Your task to perform on an android device: install app "Yahoo Mail" Image 0: 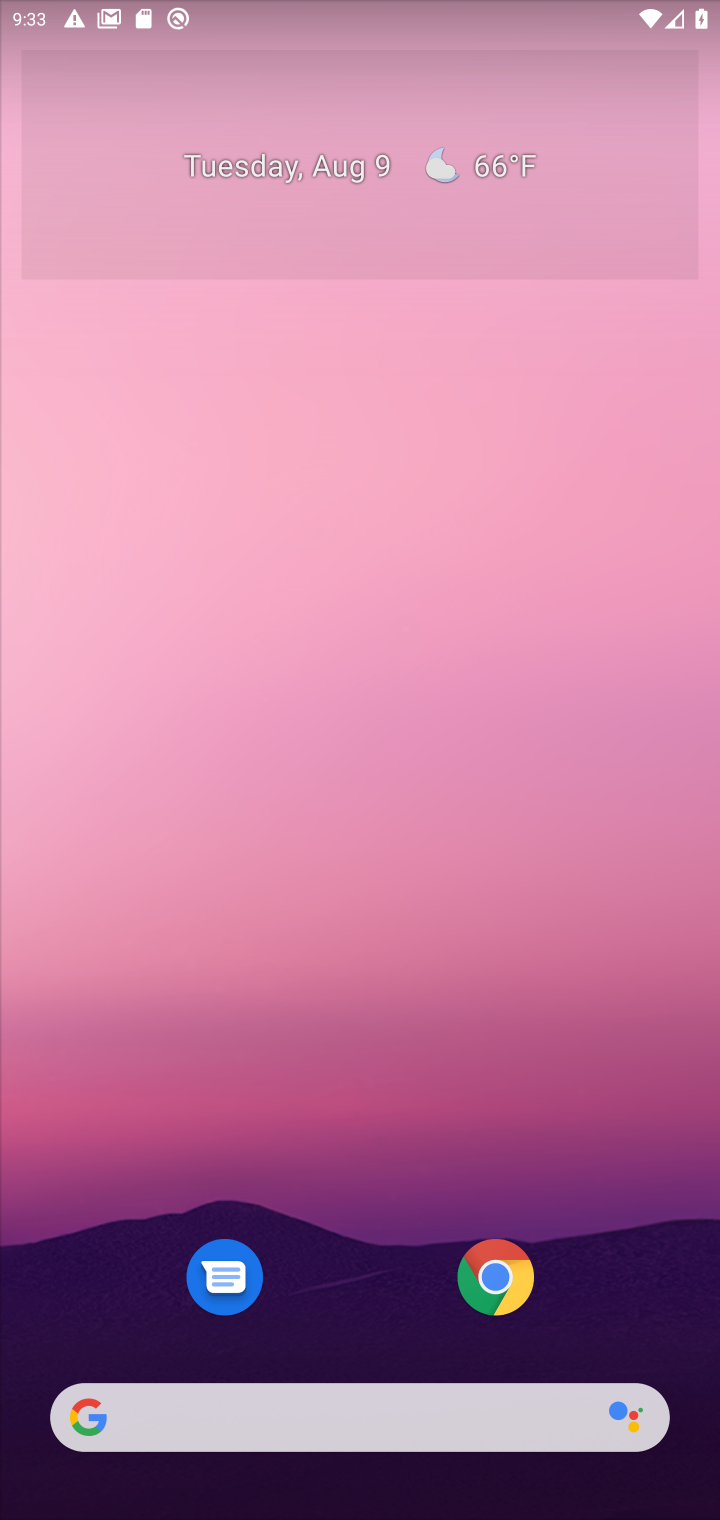
Step 0: drag from (342, 1375) to (255, 264)
Your task to perform on an android device: install app "Yahoo Mail" Image 1: 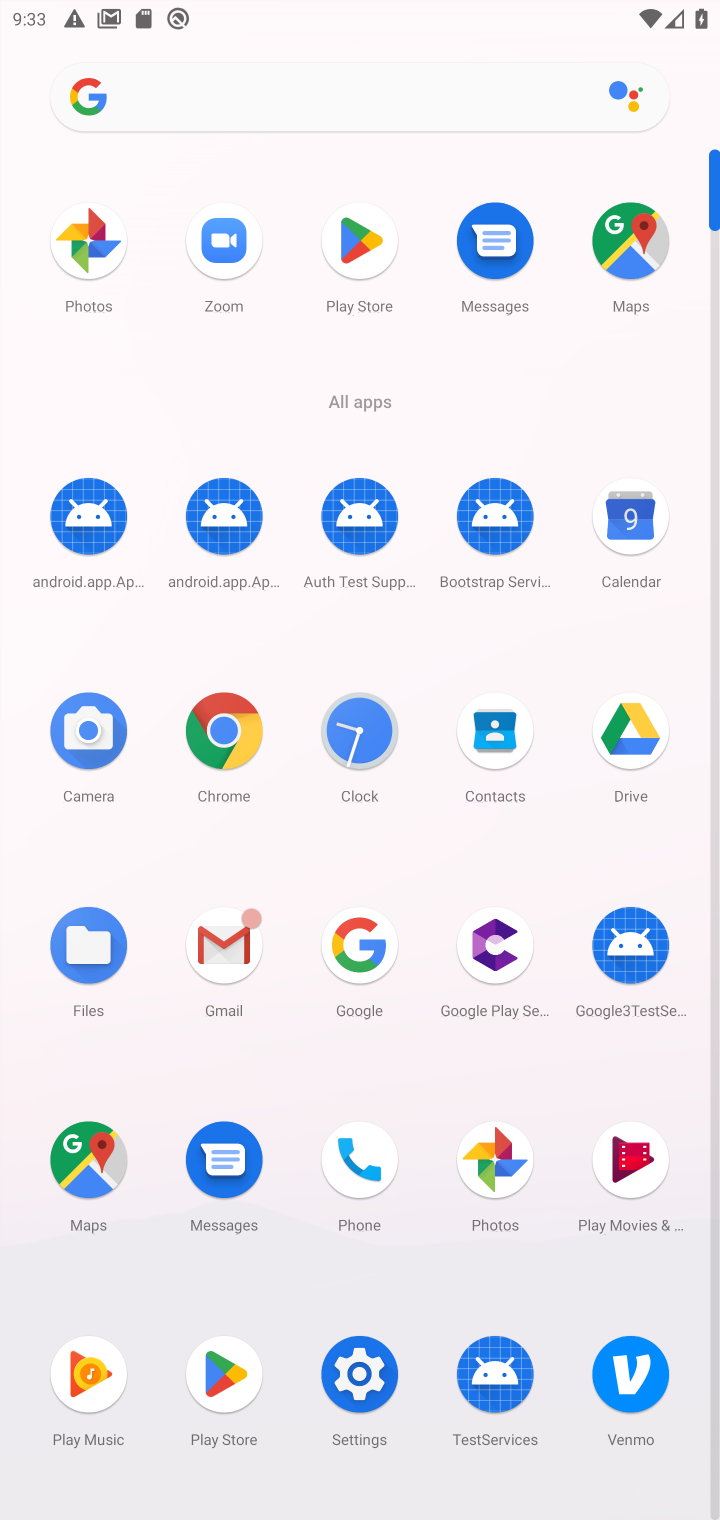
Step 1: click (211, 1366)
Your task to perform on an android device: install app "Yahoo Mail" Image 2: 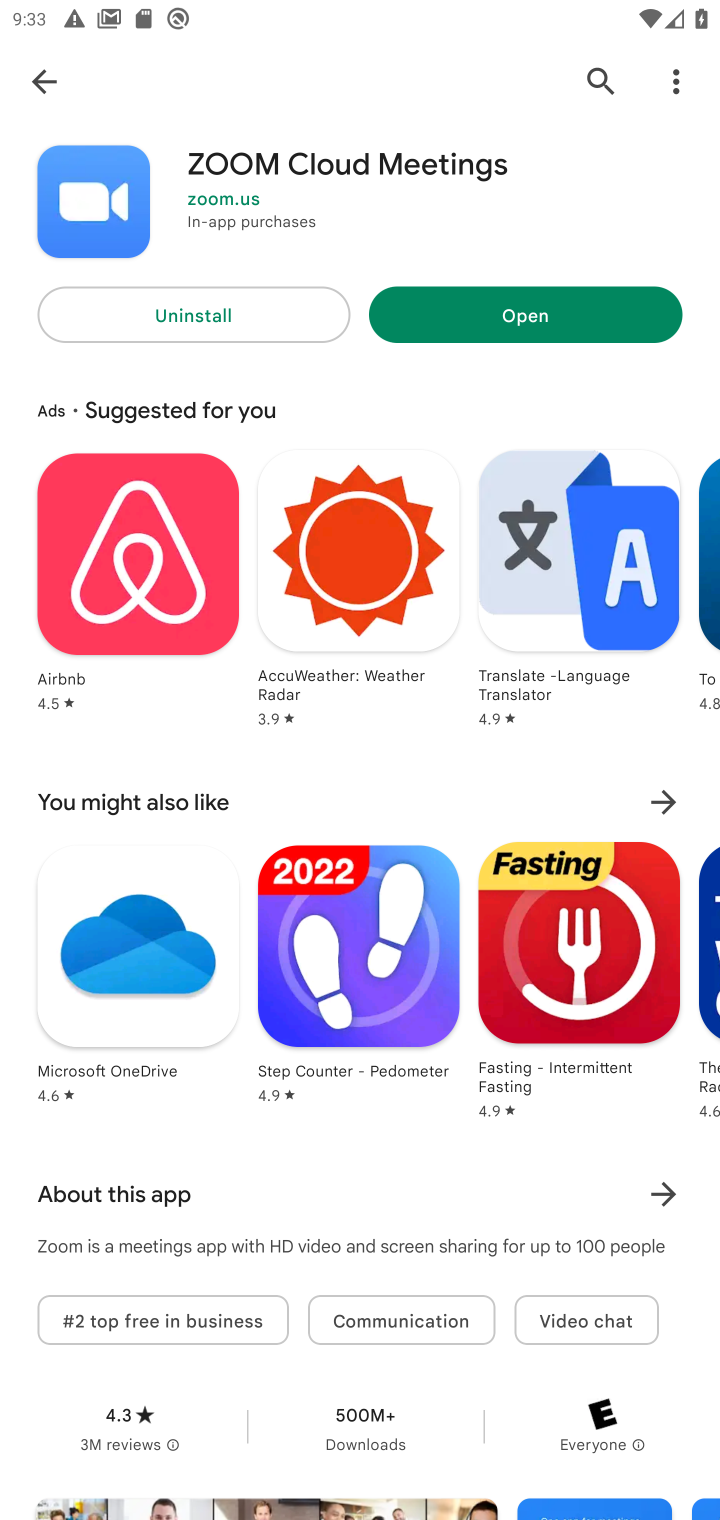
Step 2: click (43, 86)
Your task to perform on an android device: install app "Yahoo Mail" Image 3: 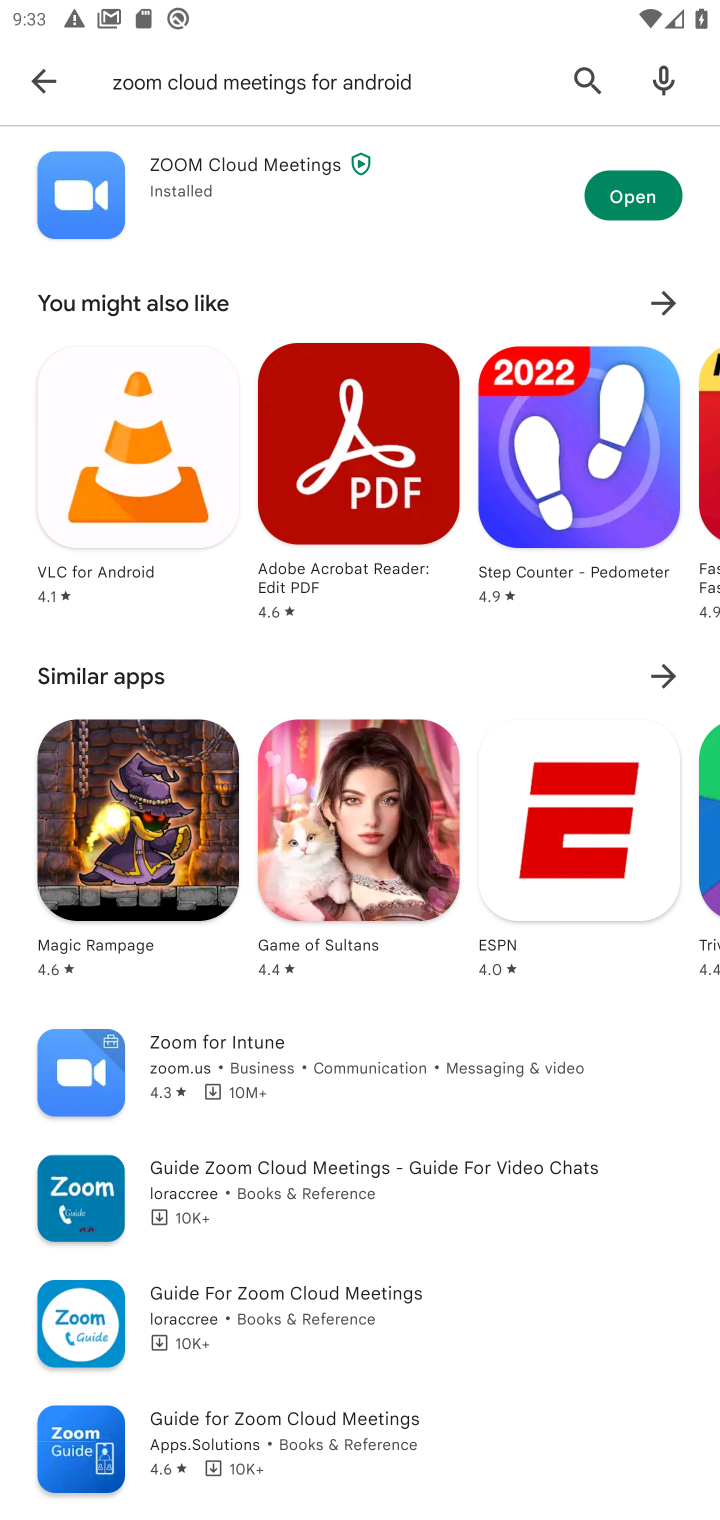
Step 3: click (45, 67)
Your task to perform on an android device: install app "Yahoo Mail" Image 4: 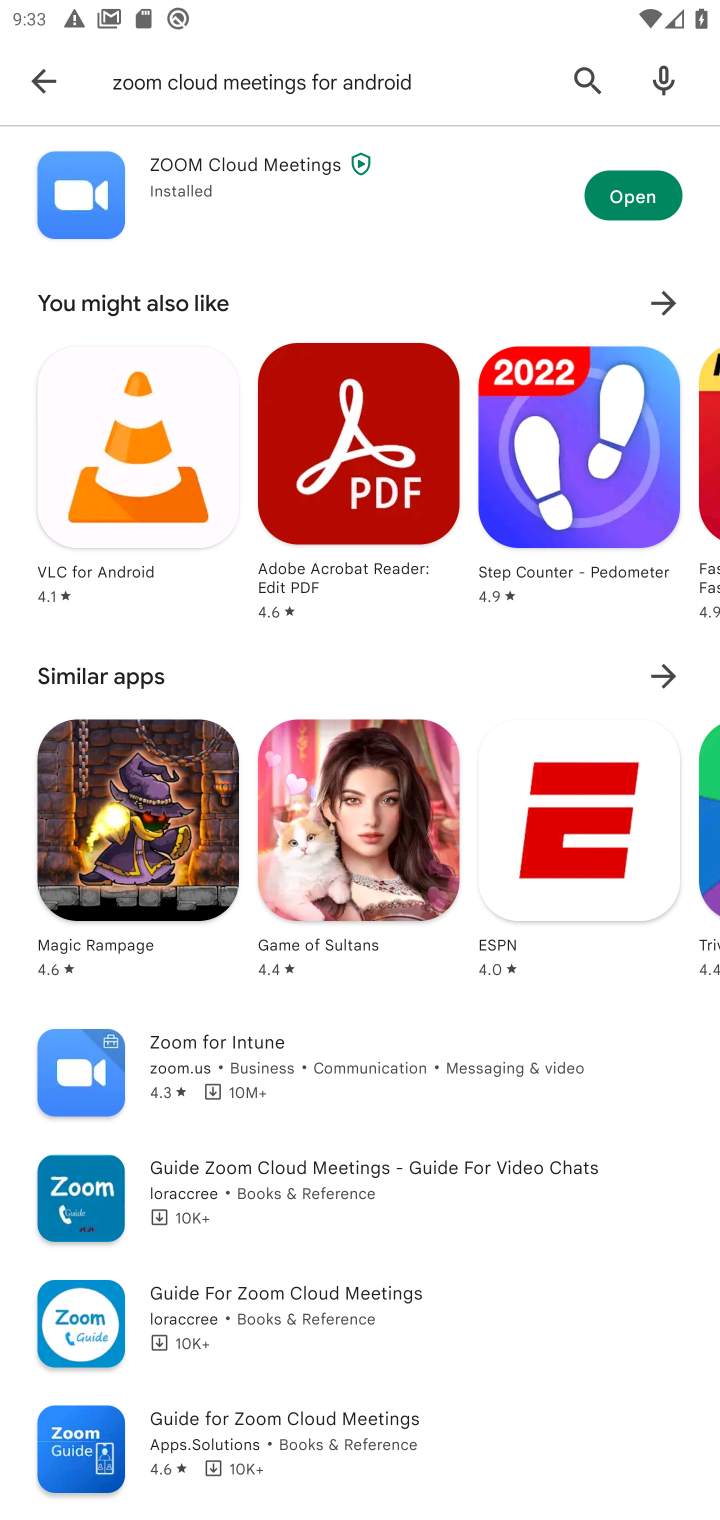
Step 4: click (565, 79)
Your task to perform on an android device: install app "Yahoo Mail" Image 5: 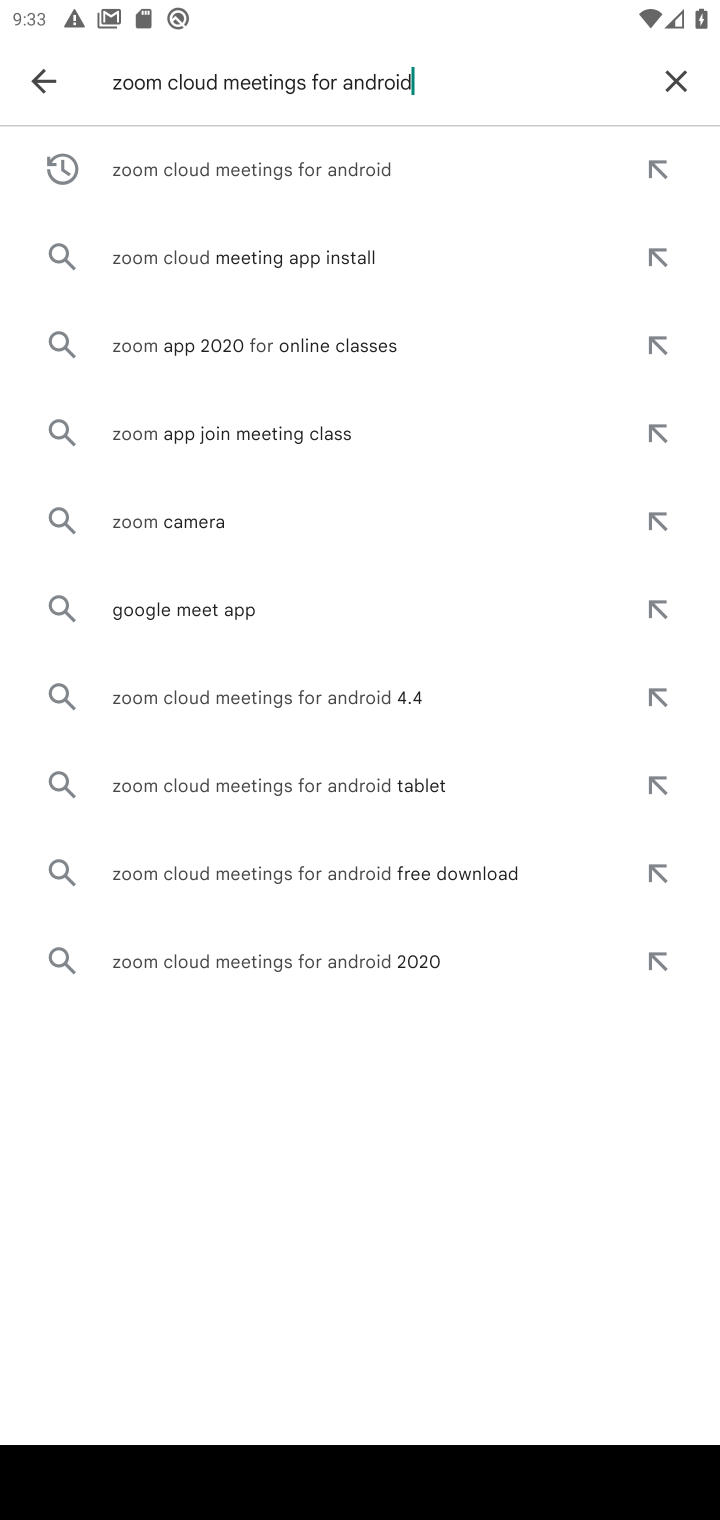
Step 5: click (686, 85)
Your task to perform on an android device: install app "Yahoo Mail" Image 6: 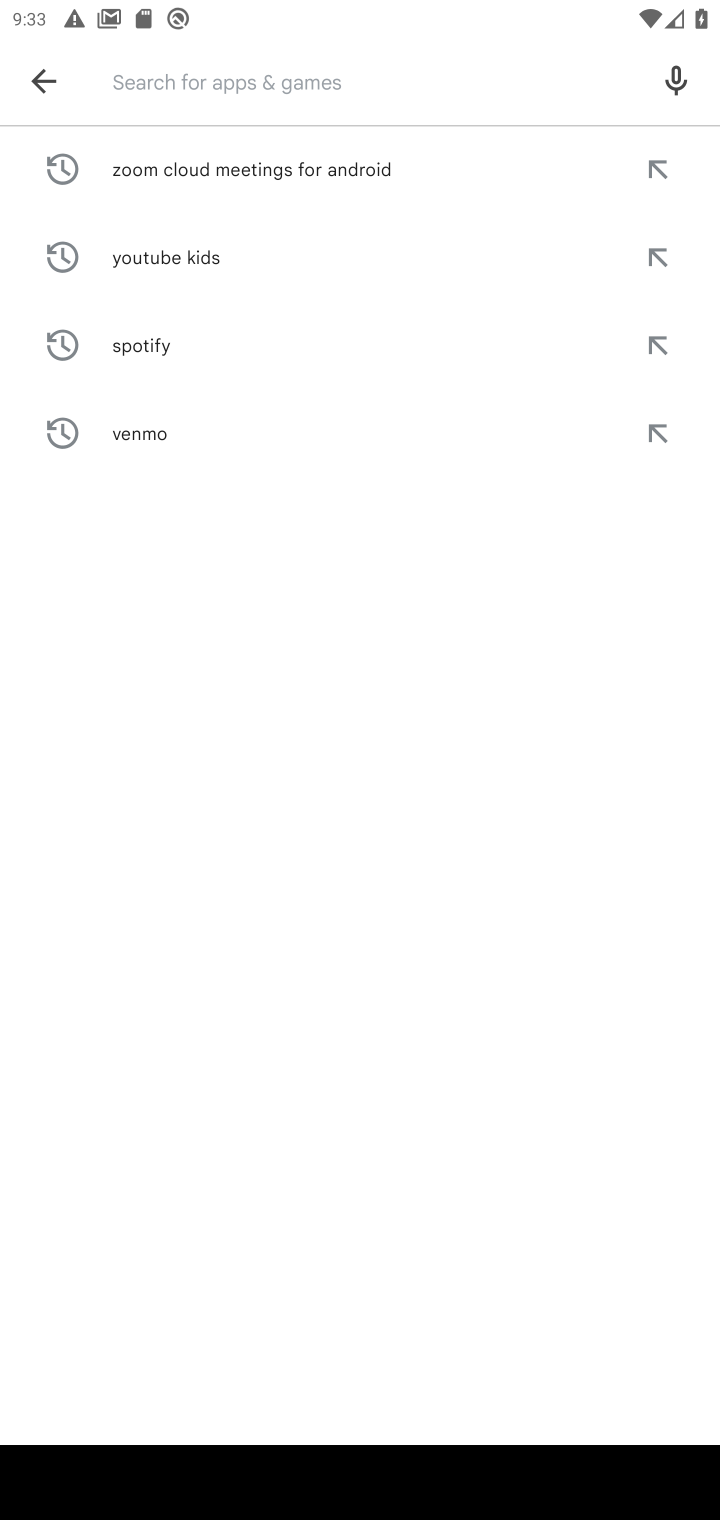
Step 6: type "Yahoo Mail"
Your task to perform on an android device: install app "Yahoo Mail" Image 7: 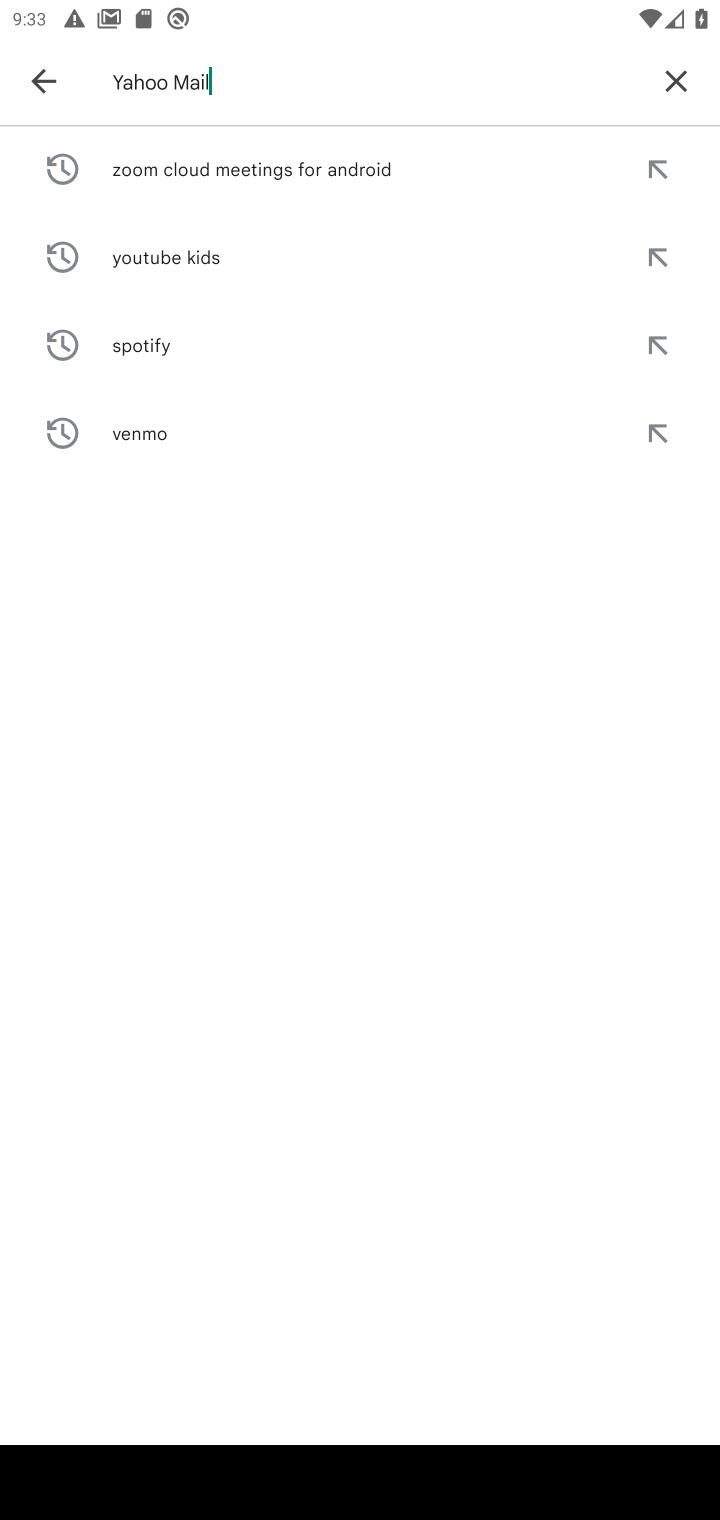
Step 7: type ""
Your task to perform on an android device: install app "Yahoo Mail" Image 8: 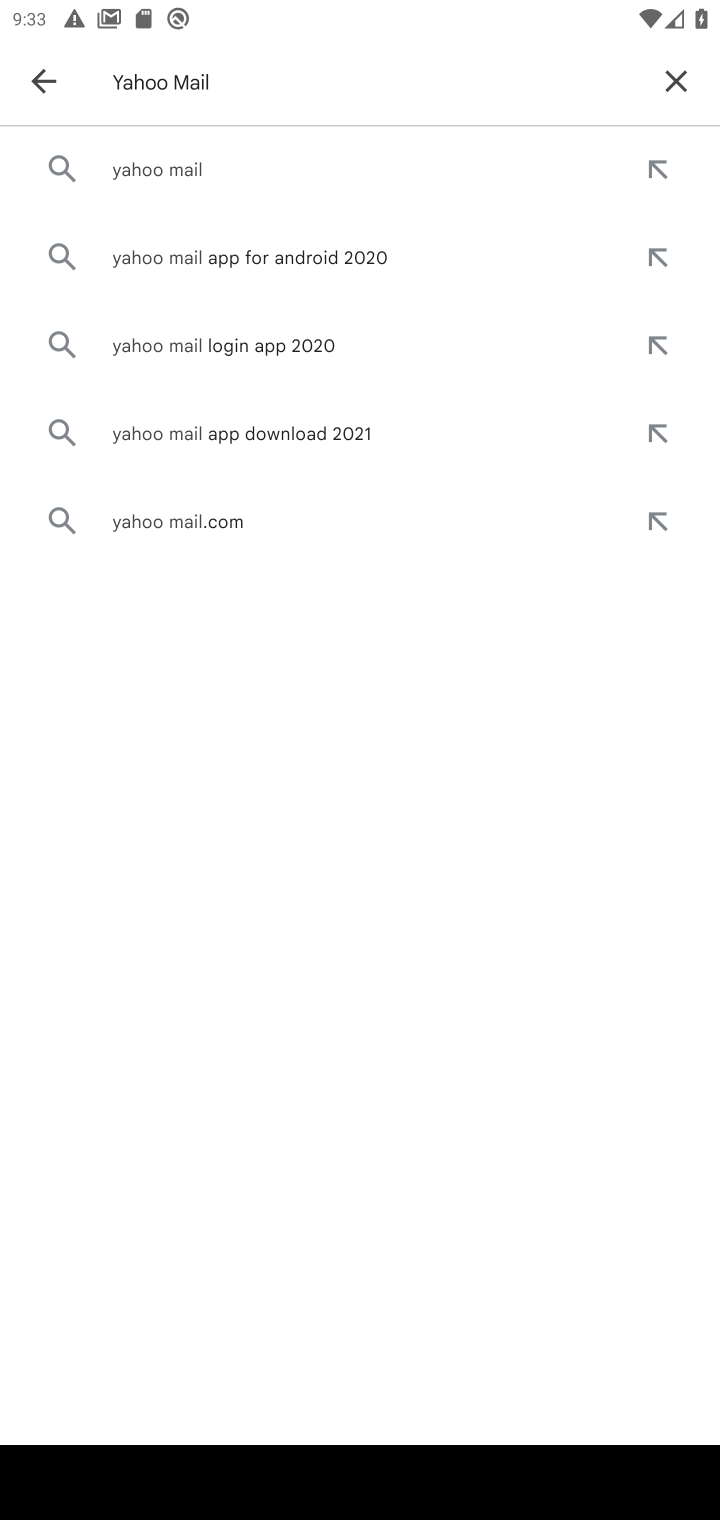
Step 8: click (210, 152)
Your task to perform on an android device: install app "Yahoo Mail" Image 9: 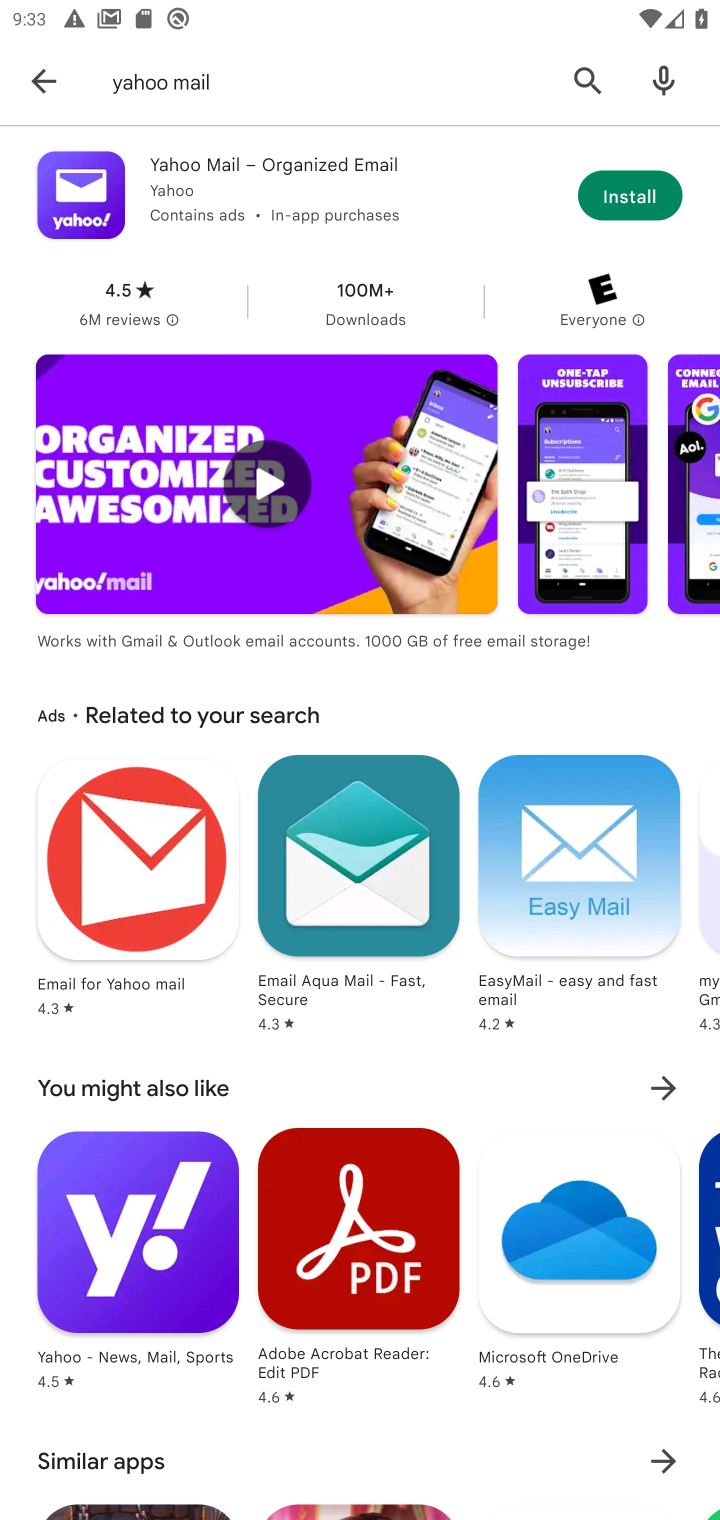
Step 9: click (629, 186)
Your task to perform on an android device: install app "Yahoo Mail" Image 10: 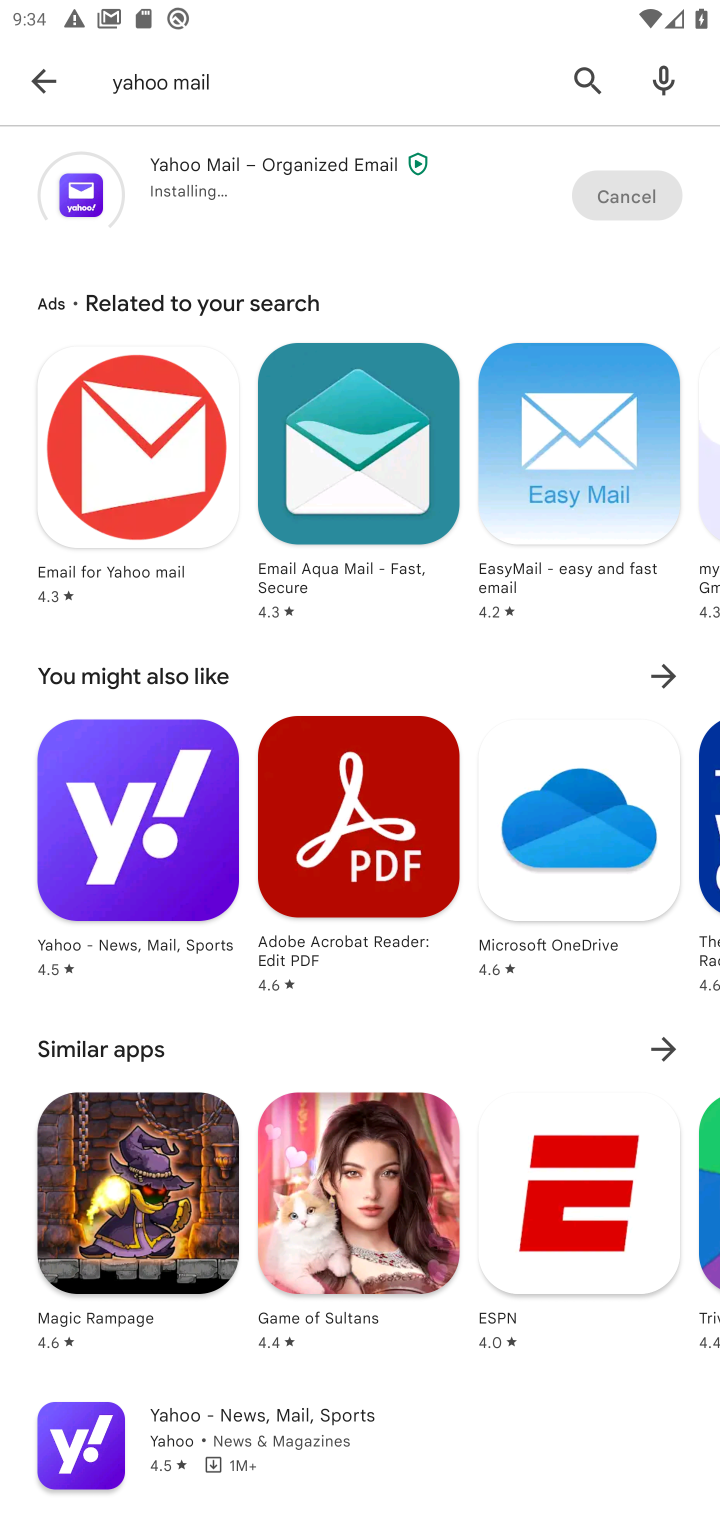
Step 10: click (244, 178)
Your task to perform on an android device: install app "Yahoo Mail" Image 11: 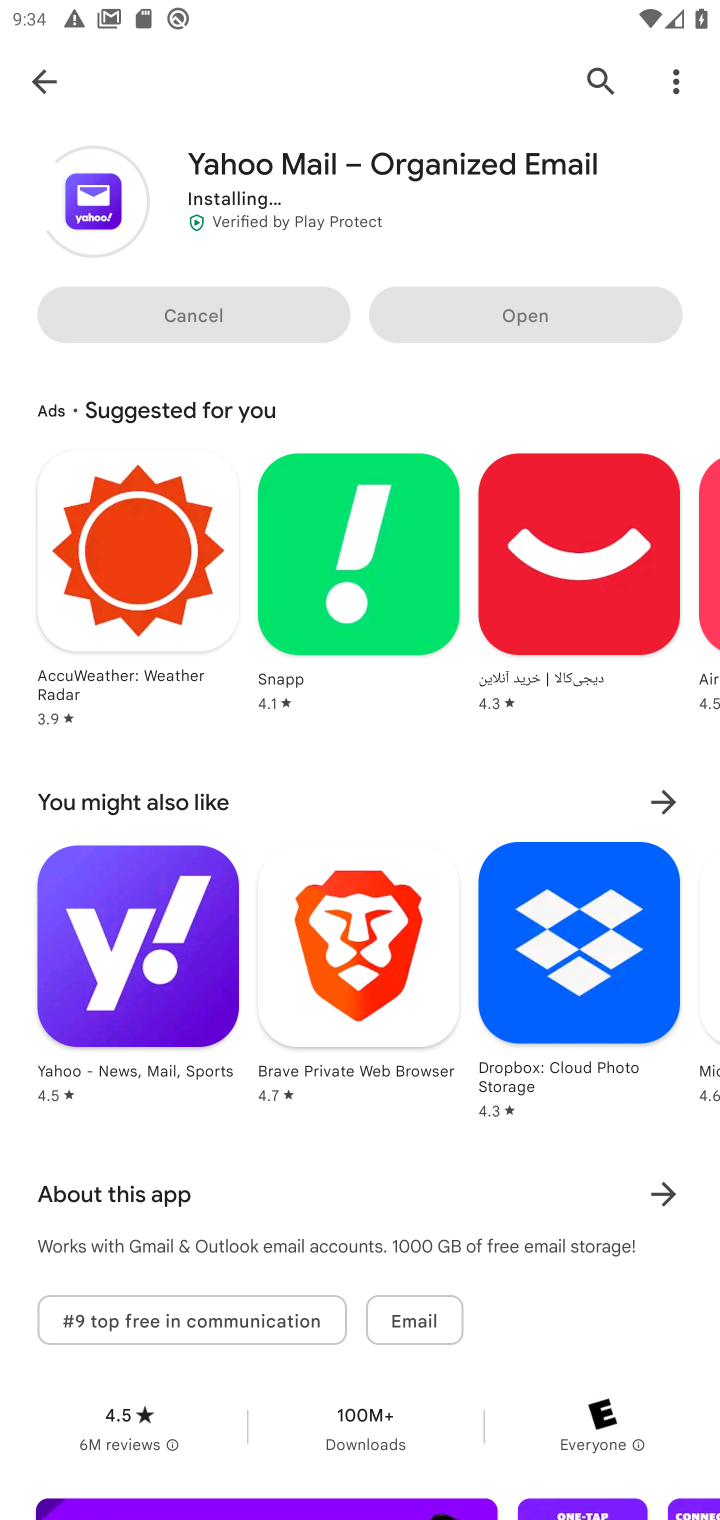
Step 11: press home button
Your task to perform on an android device: install app "Yahoo Mail" Image 12: 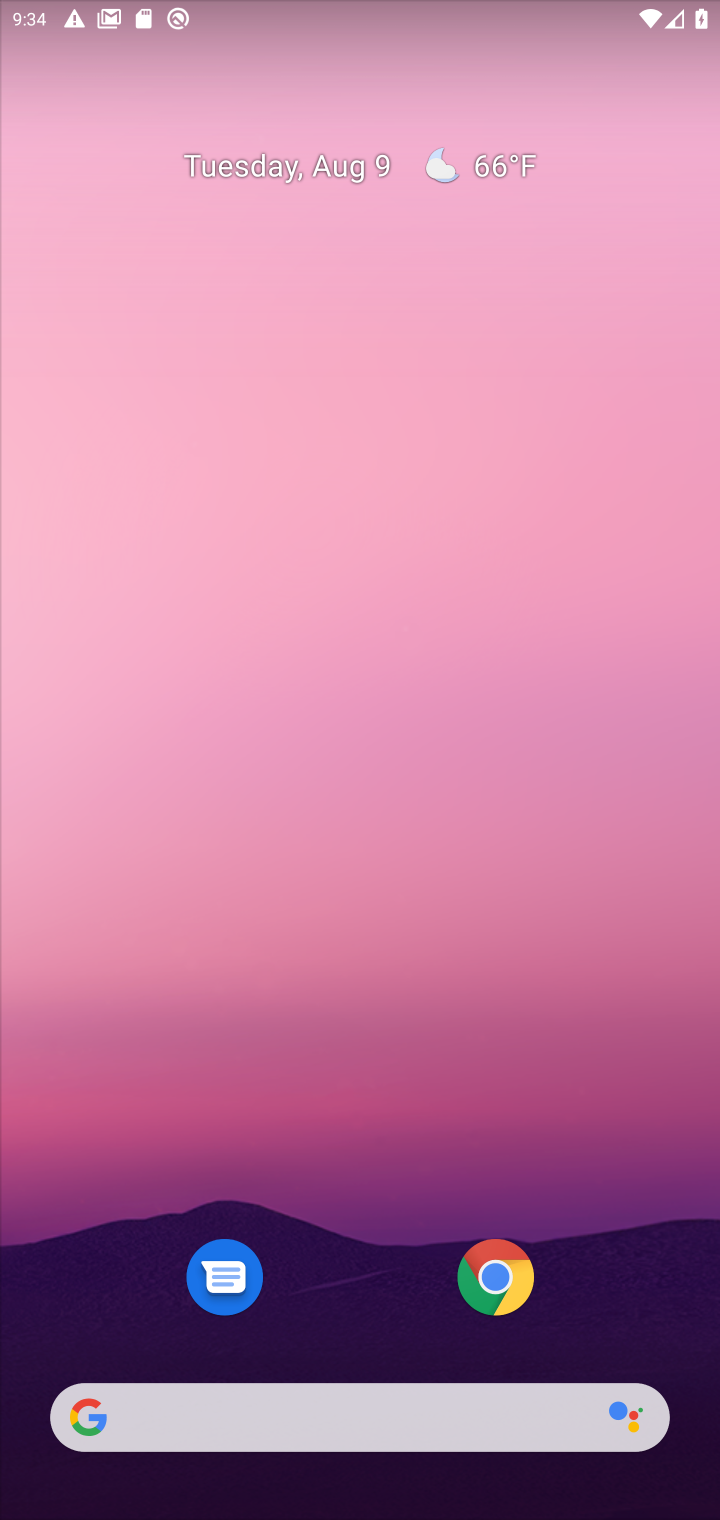
Step 12: drag from (304, 1337) to (151, 135)
Your task to perform on an android device: install app "Yahoo Mail" Image 13: 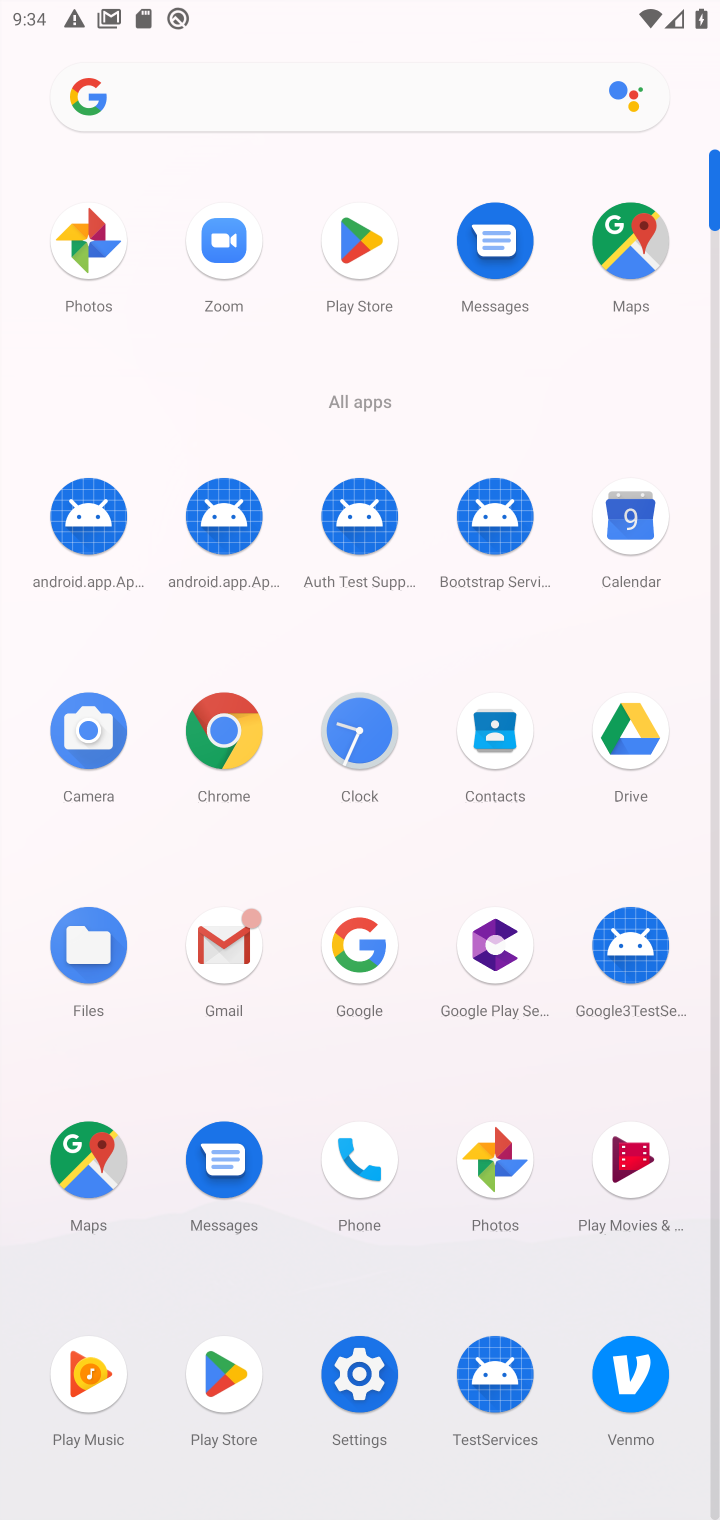
Step 13: click (227, 1369)
Your task to perform on an android device: install app "Yahoo Mail" Image 14: 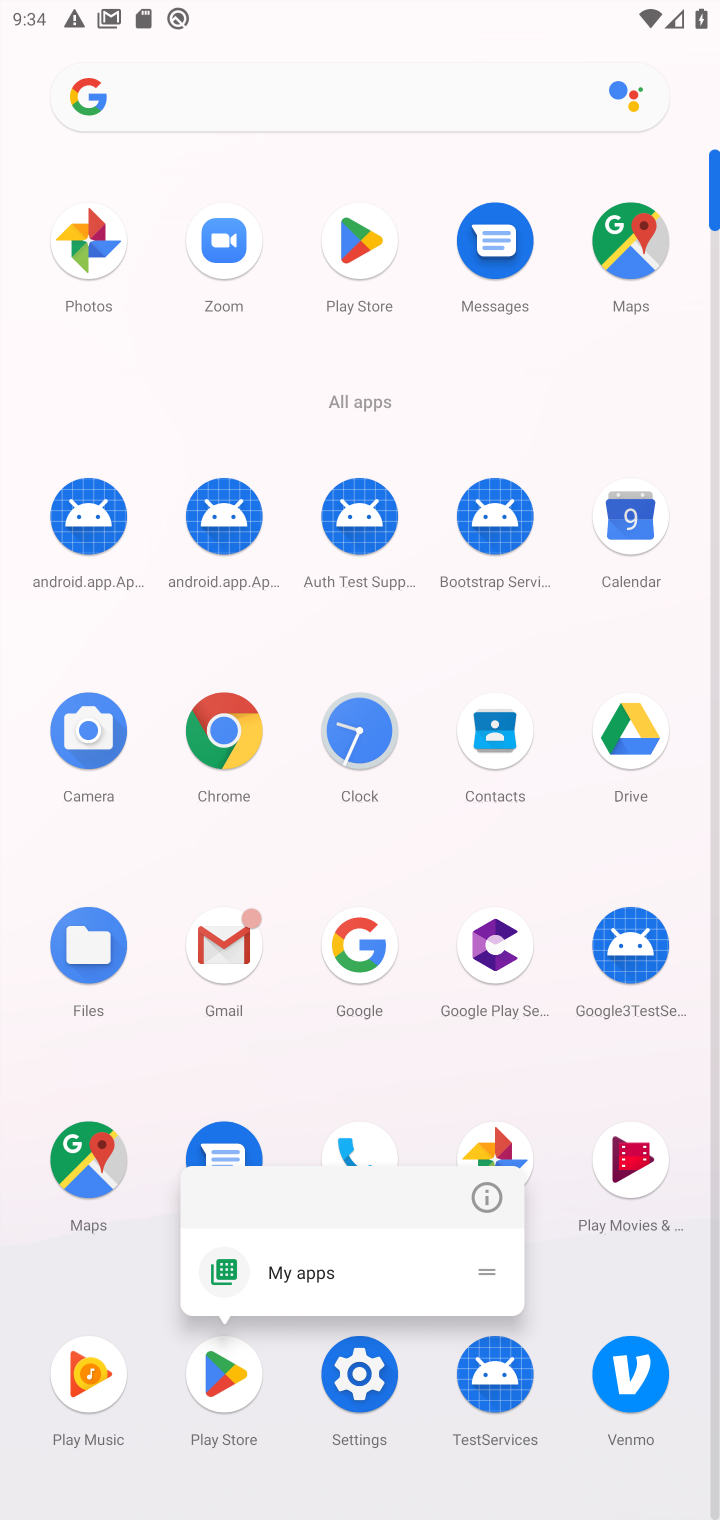
Step 14: click (227, 1369)
Your task to perform on an android device: install app "Yahoo Mail" Image 15: 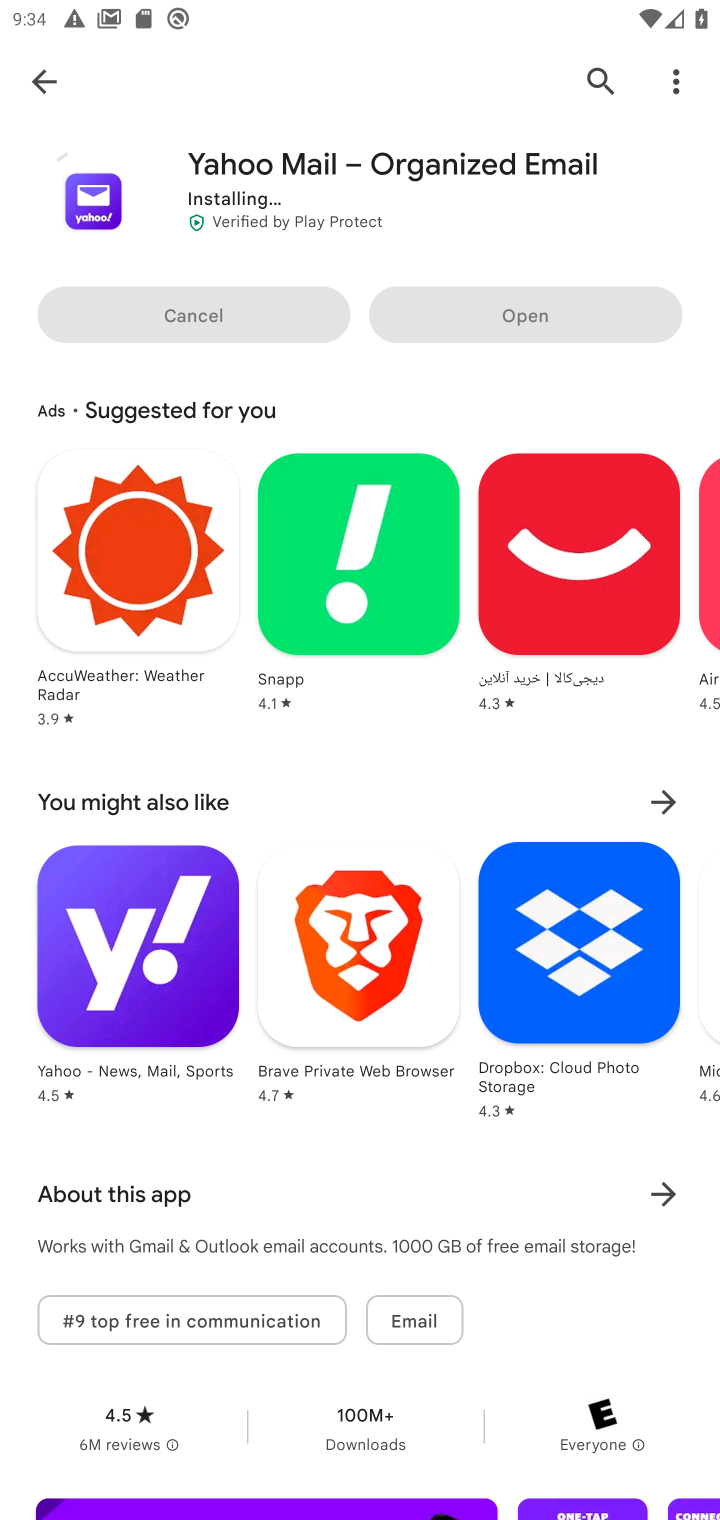
Step 15: click (55, 82)
Your task to perform on an android device: install app "Yahoo Mail" Image 16: 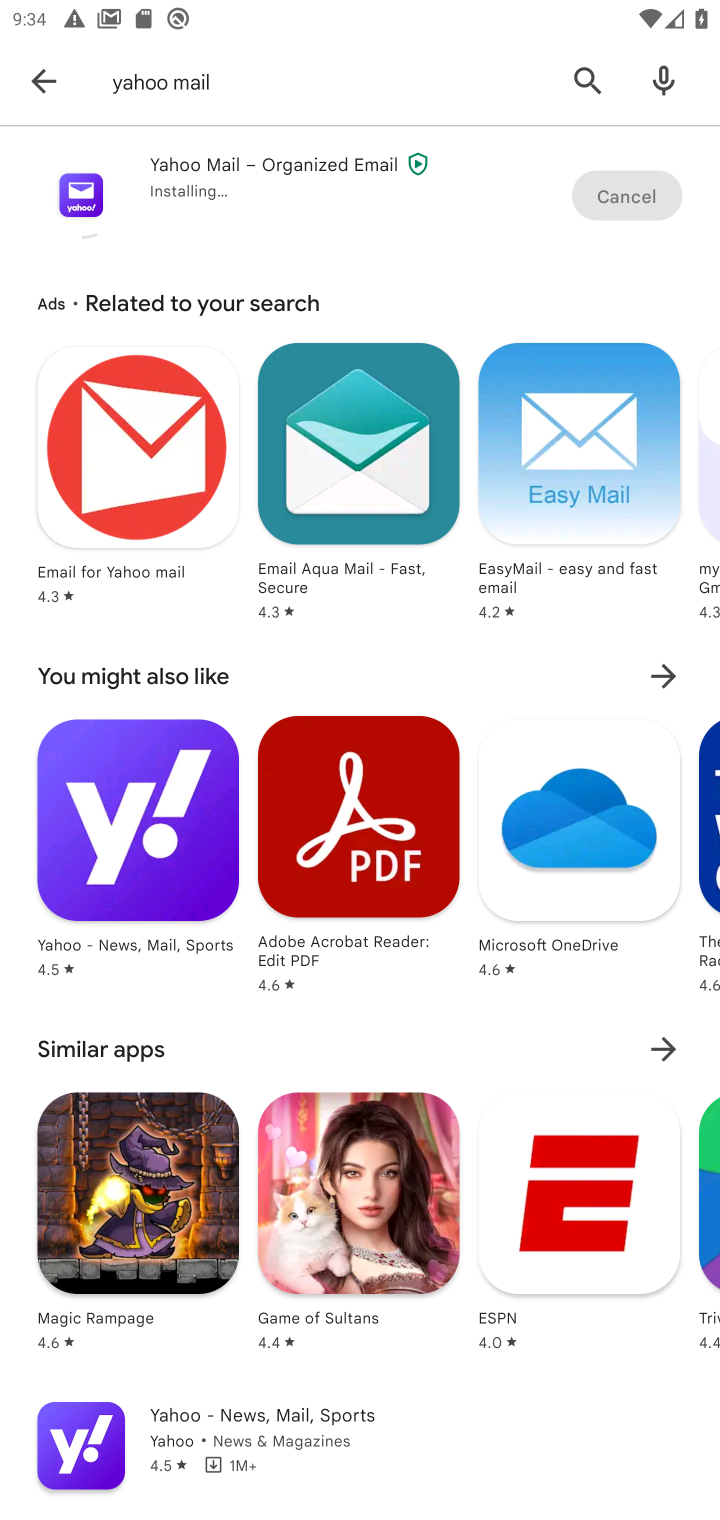
Step 16: click (188, 196)
Your task to perform on an android device: install app "Yahoo Mail" Image 17: 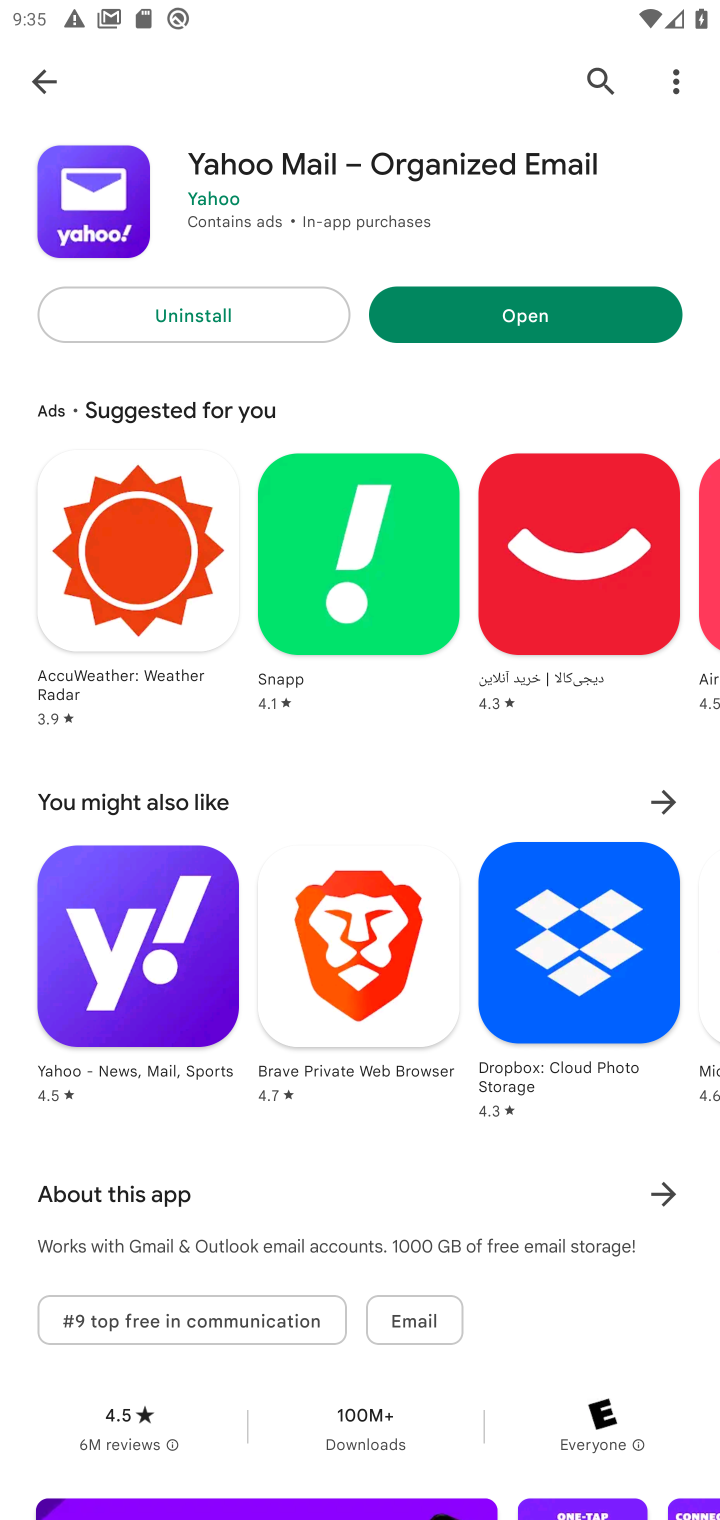
Step 17: click (484, 320)
Your task to perform on an android device: install app "Yahoo Mail" Image 18: 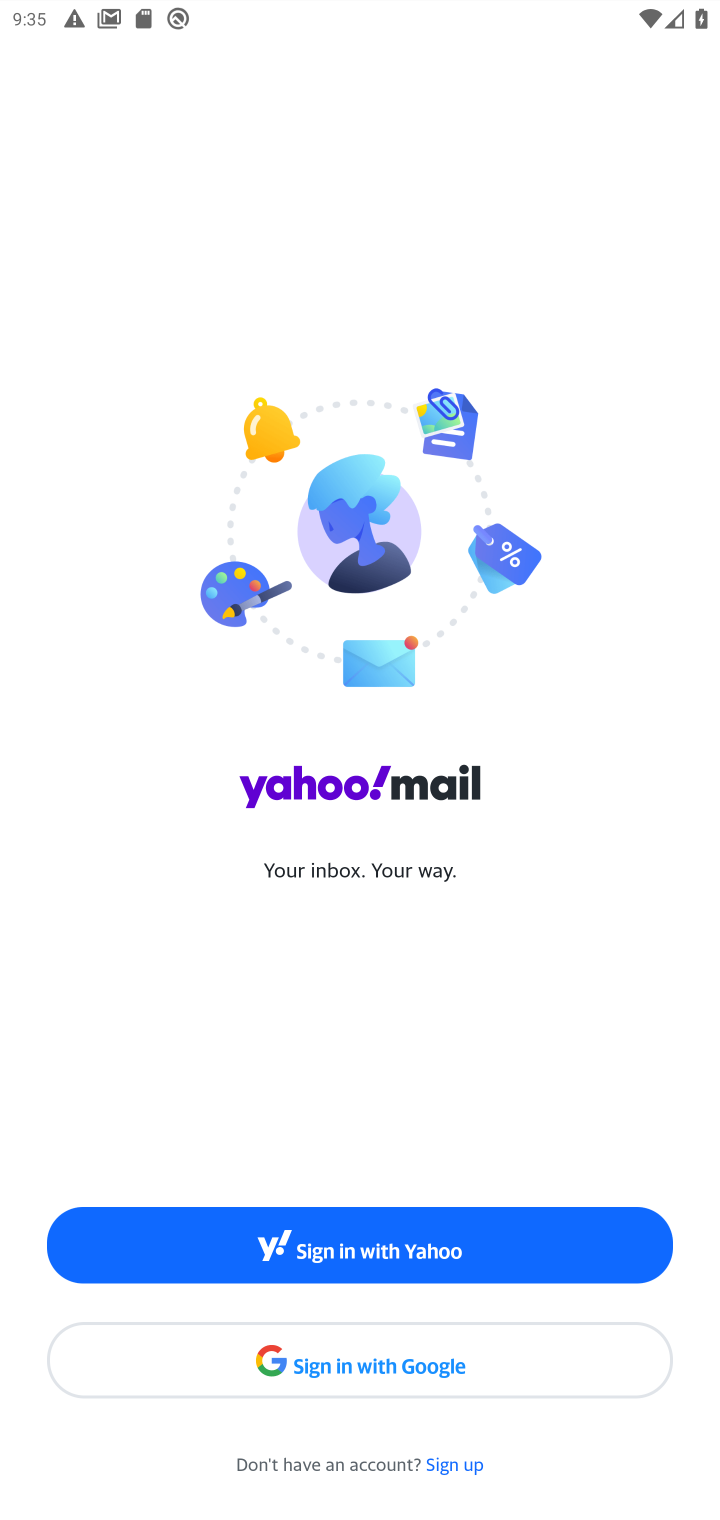
Step 18: task complete